Your task to perform on an android device: turn on airplane mode Image 0: 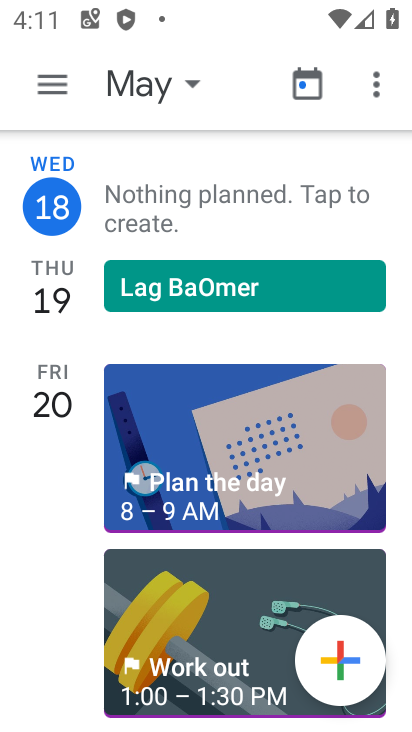
Step 0: press home button
Your task to perform on an android device: turn on airplane mode Image 1: 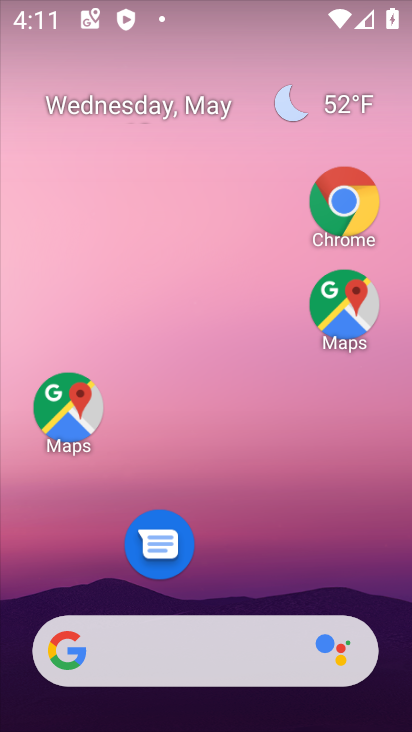
Step 1: drag from (308, 575) to (272, 161)
Your task to perform on an android device: turn on airplane mode Image 2: 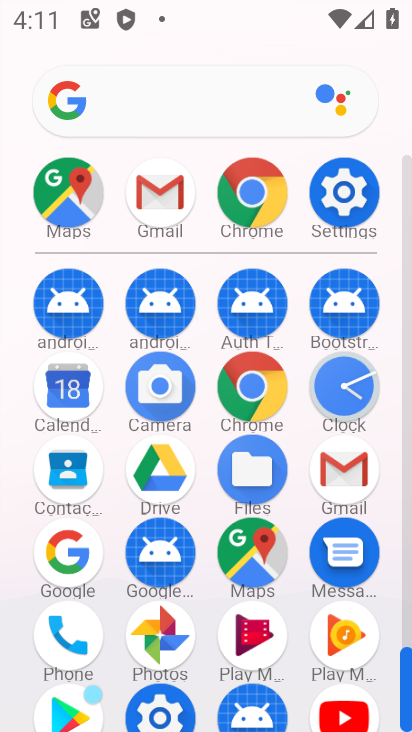
Step 2: click (350, 211)
Your task to perform on an android device: turn on airplane mode Image 3: 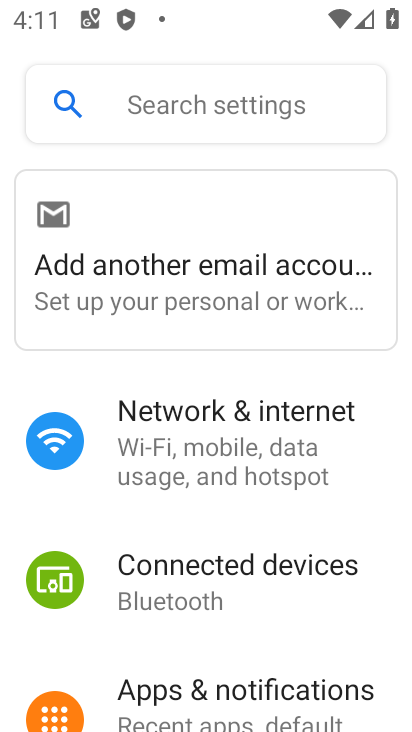
Step 3: click (264, 450)
Your task to perform on an android device: turn on airplane mode Image 4: 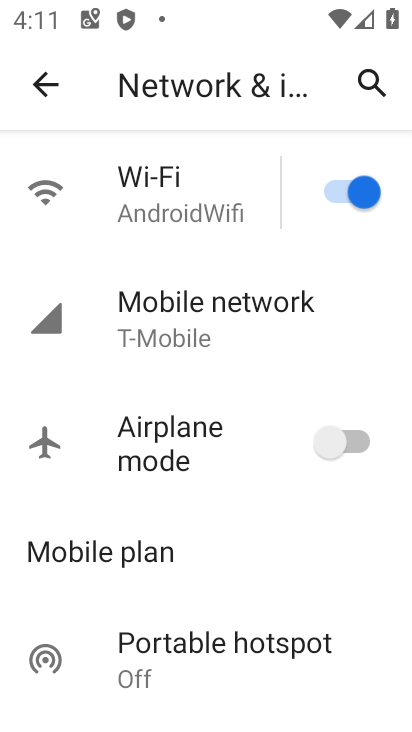
Step 4: click (356, 440)
Your task to perform on an android device: turn on airplane mode Image 5: 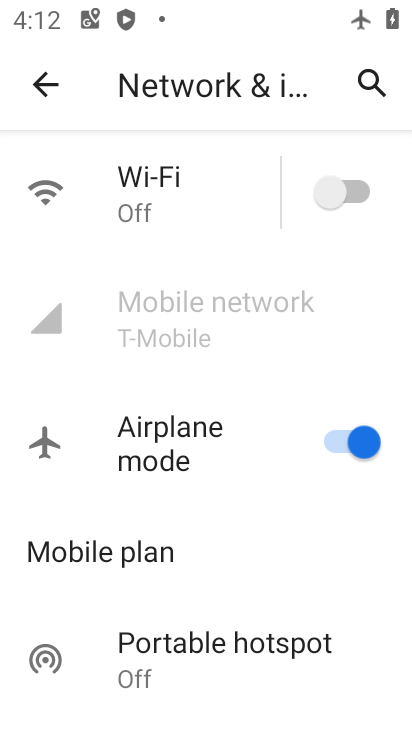
Step 5: task complete